Your task to perform on an android device: open wifi settings Image 0: 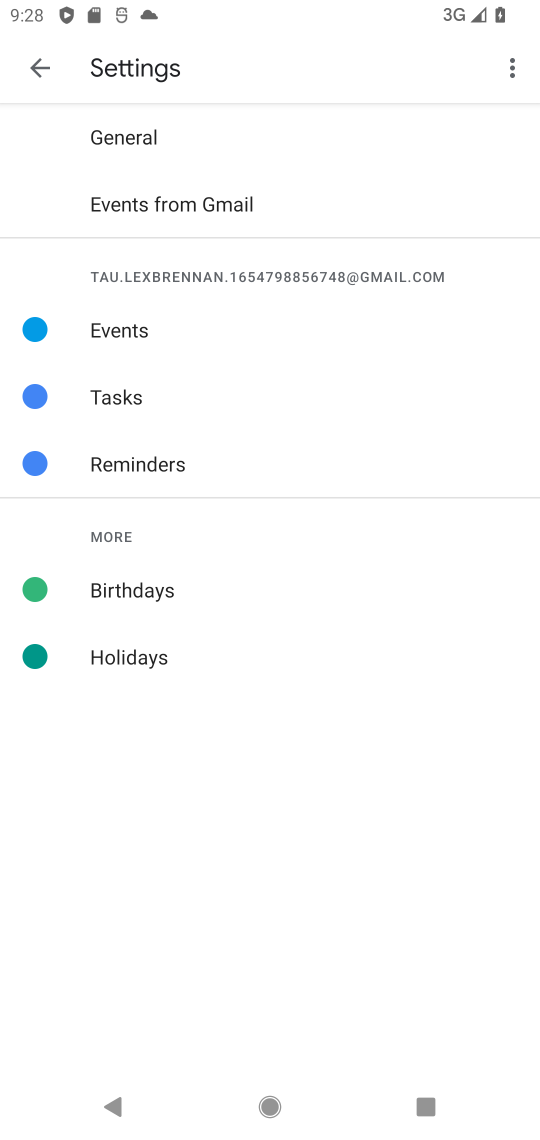
Step 0: drag from (295, 393) to (359, 65)
Your task to perform on an android device: open wifi settings Image 1: 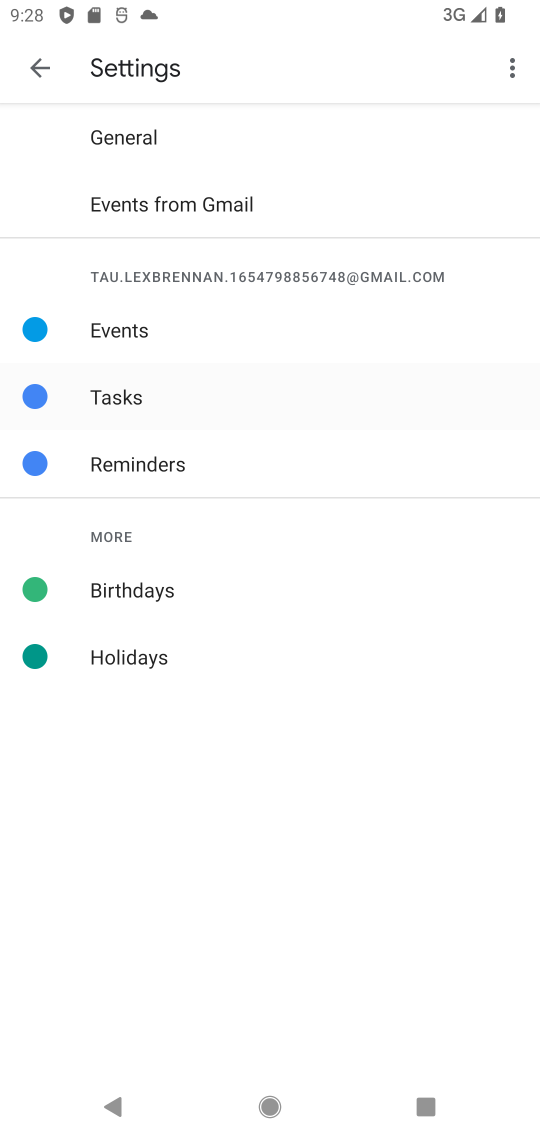
Step 1: press home button
Your task to perform on an android device: open wifi settings Image 2: 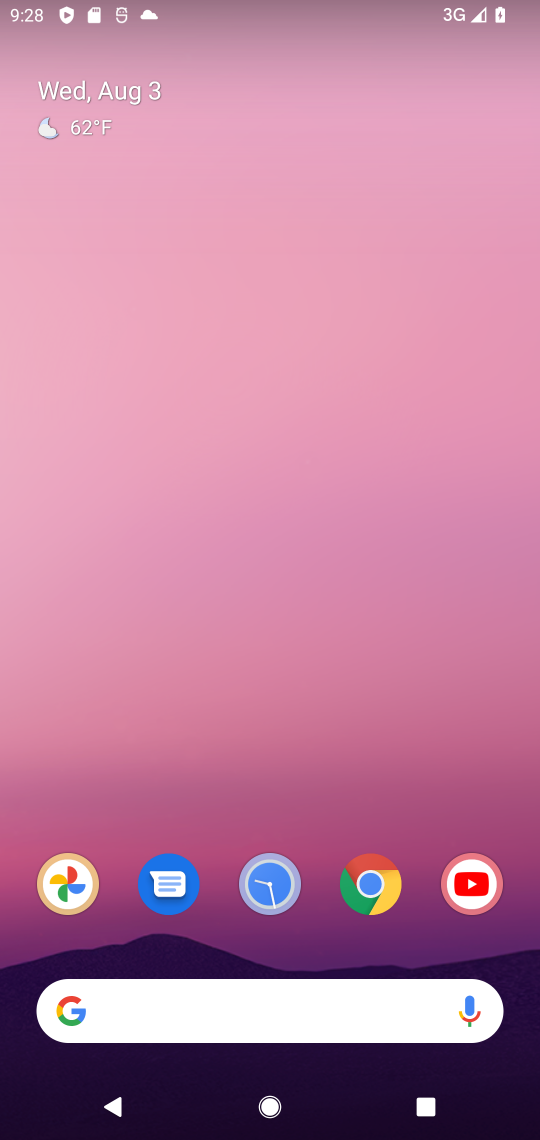
Step 2: drag from (216, 943) to (274, 548)
Your task to perform on an android device: open wifi settings Image 3: 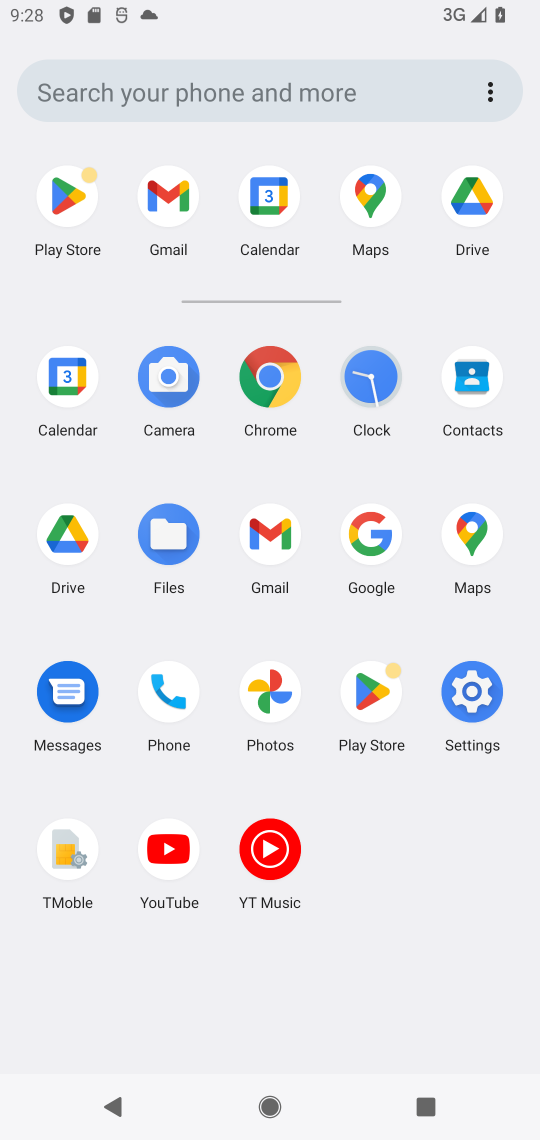
Step 3: click (479, 687)
Your task to perform on an android device: open wifi settings Image 4: 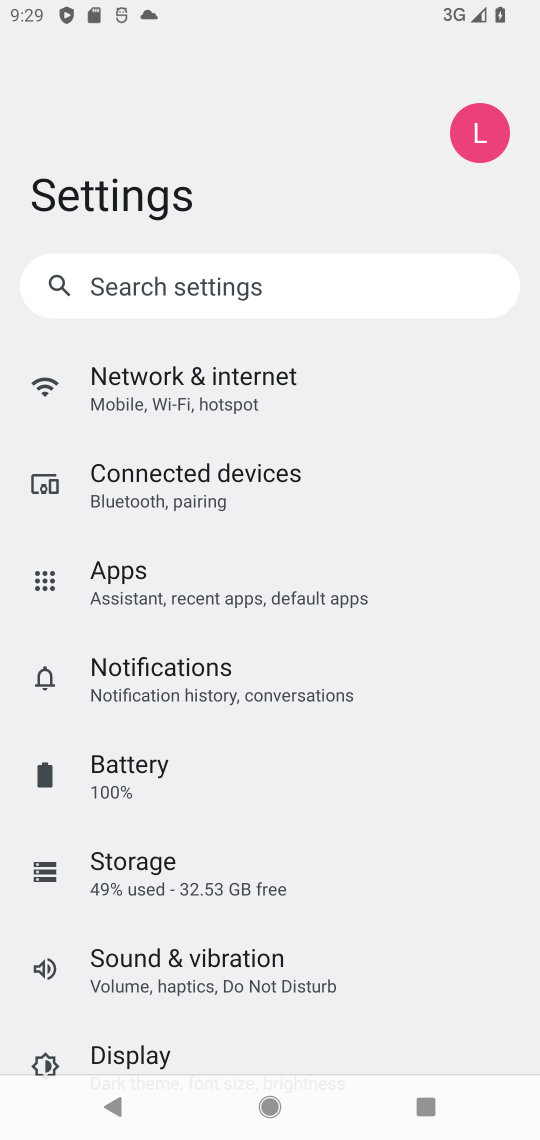
Step 4: click (198, 384)
Your task to perform on an android device: open wifi settings Image 5: 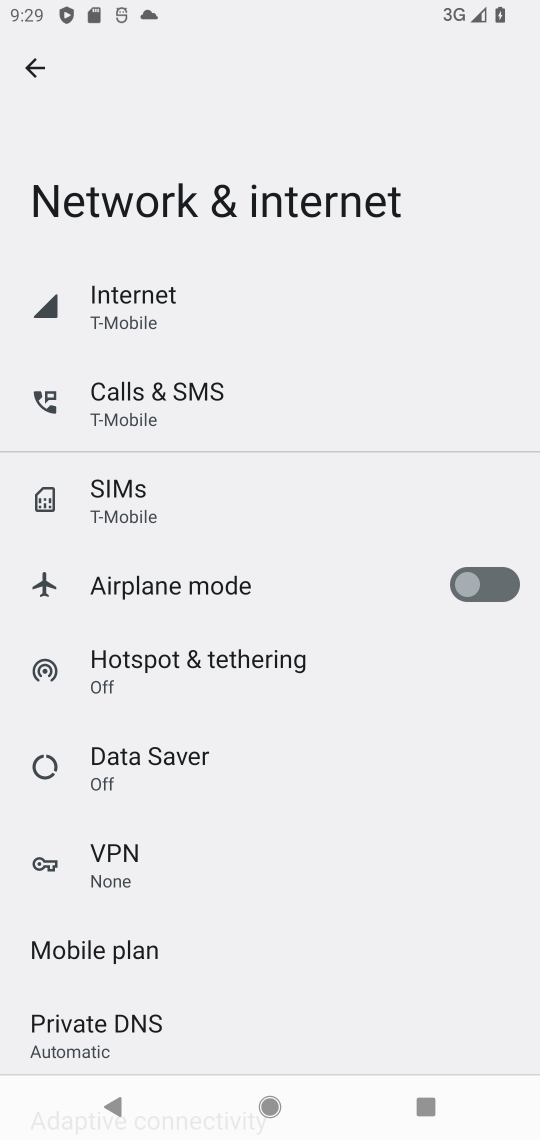
Step 5: click (195, 301)
Your task to perform on an android device: open wifi settings Image 6: 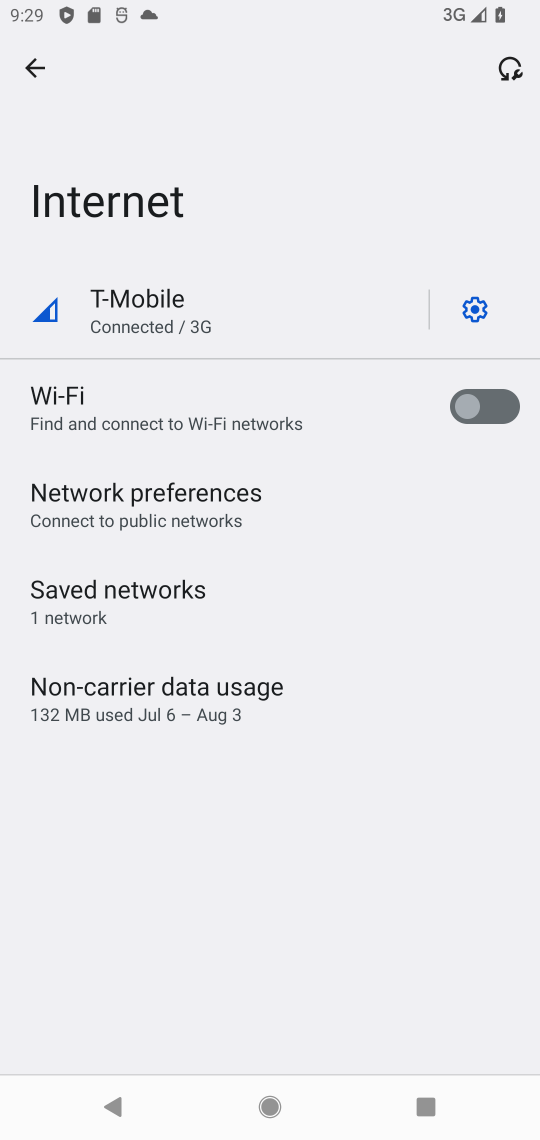
Step 6: click (479, 308)
Your task to perform on an android device: open wifi settings Image 7: 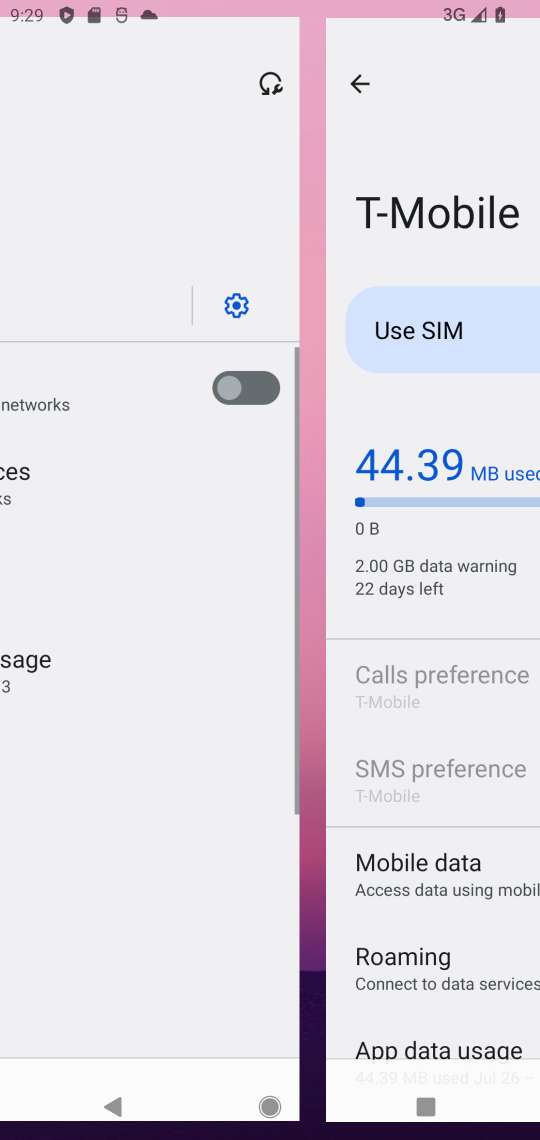
Step 7: task complete